Your task to perform on an android device: Show me popular videos on Youtube Image 0: 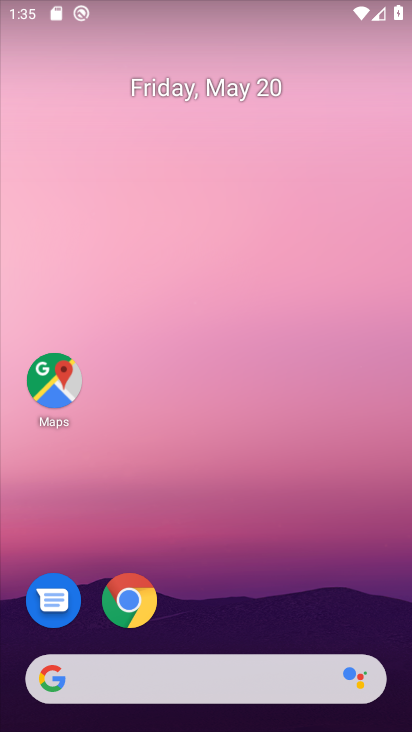
Step 0: drag from (209, 611) to (233, 83)
Your task to perform on an android device: Show me popular videos on Youtube Image 1: 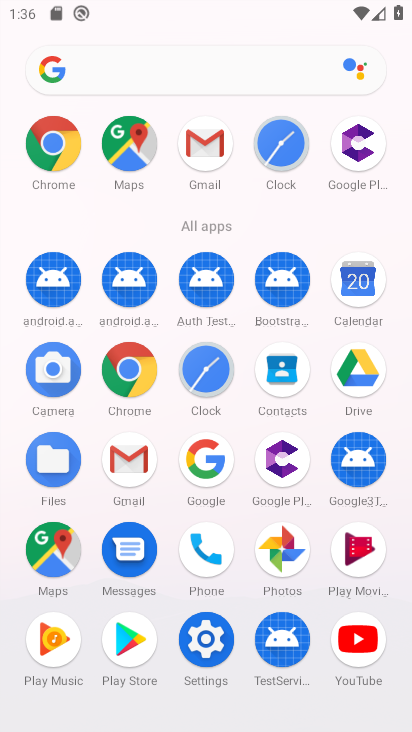
Step 1: click (368, 638)
Your task to perform on an android device: Show me popular videos on Youtube Image 2: 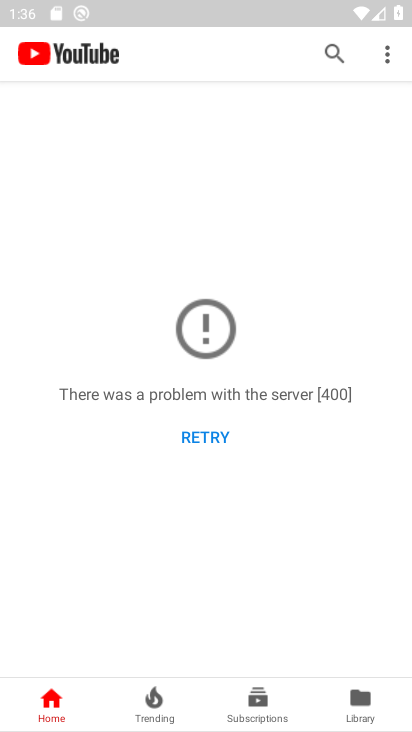
Step 2: click (234, 441)
Your task to perform on an android device: Show me popular videos on Youtube Image 3: 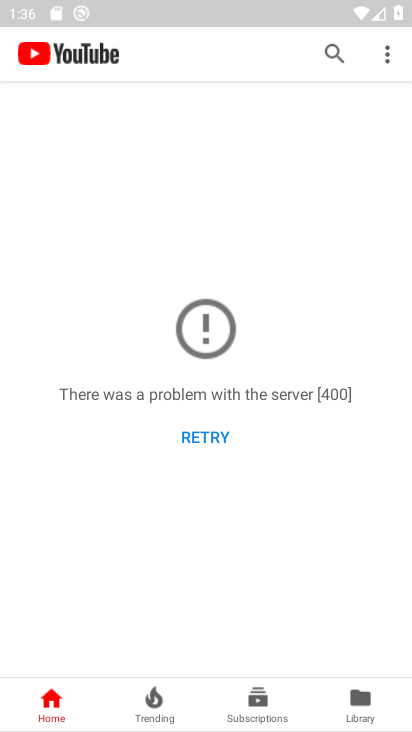
Step 3: click (222, 439)
Your task to perform on an android device: Show me popular videos on Youtube Image 4: 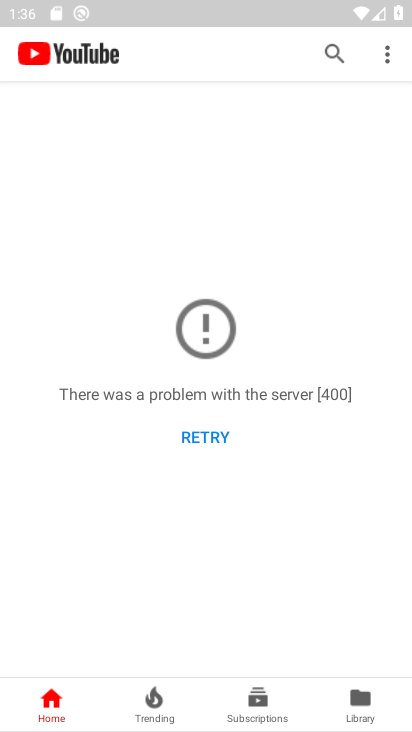
Step 4: click (222, 439)
Your task to perform on an android device: Show me popular videos on Youtube Image 5: 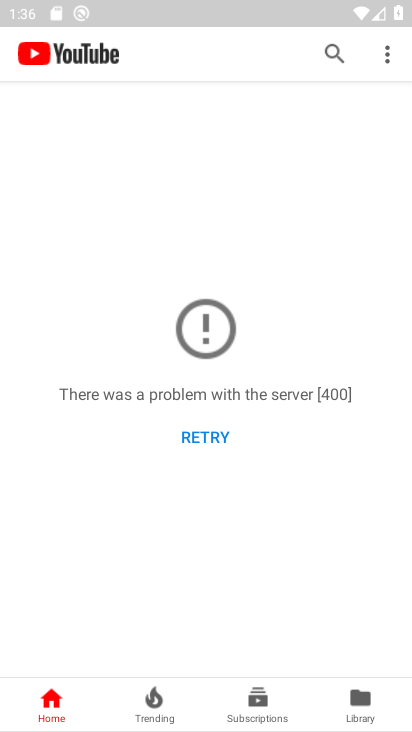
Step 5: click (222, 439)
Your task to perform on an android device: Show me popular videos on Youtube Image 6: 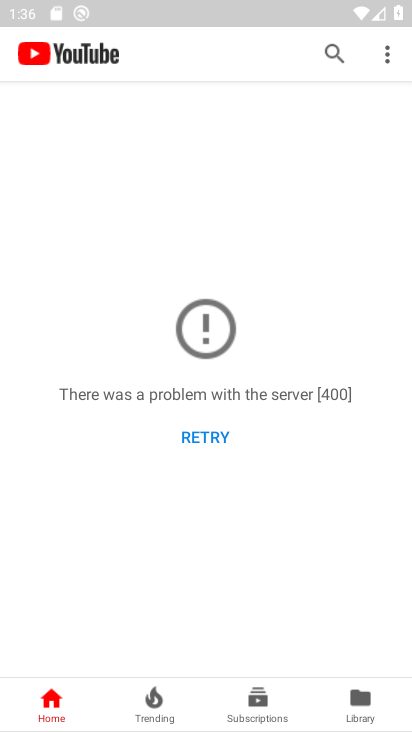
Step 6: task complete